Your task to perform on an android device: check google app version Image 0: 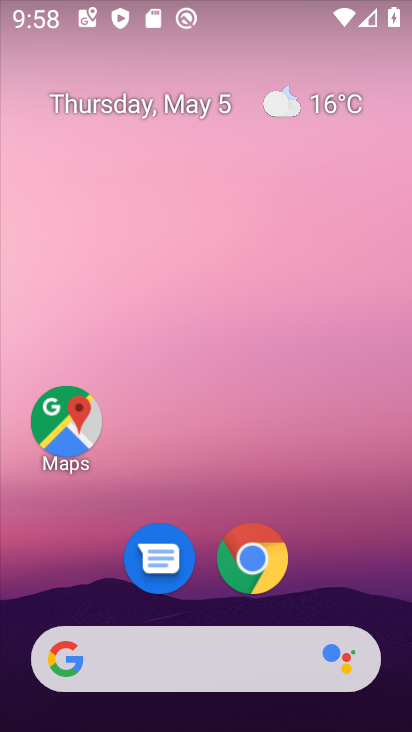
Step 0: click (265, 559)
Your task to perform on an android device: check google app version Image 1: 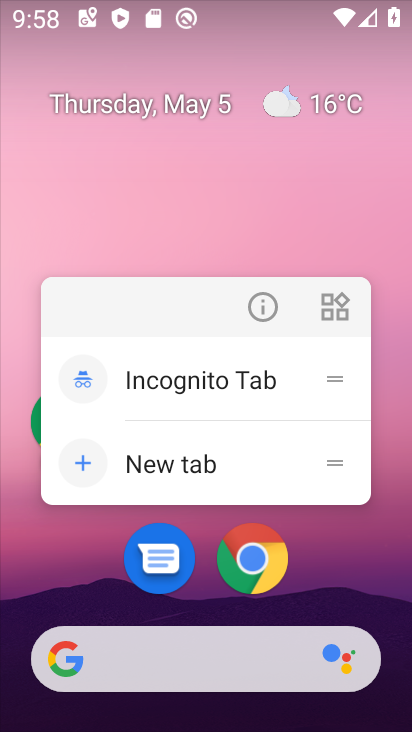
Step 1: click (269, 311)
Your task to perform on an android device: check google app version Image 2: 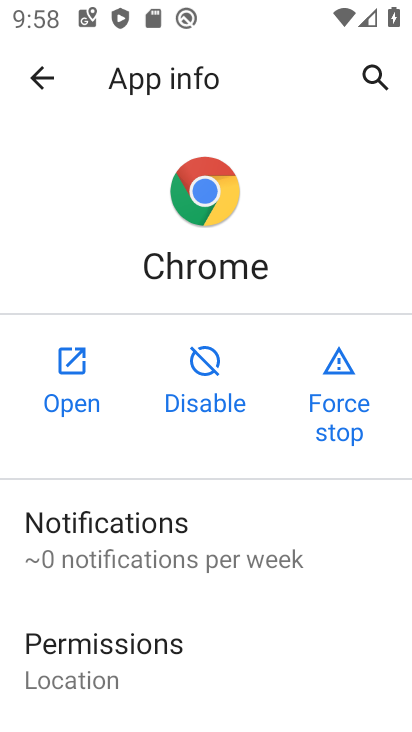
Step 2: drag from (243, 612) to (84, 122)
Your task to perform on an android device: check google app version Image 3: 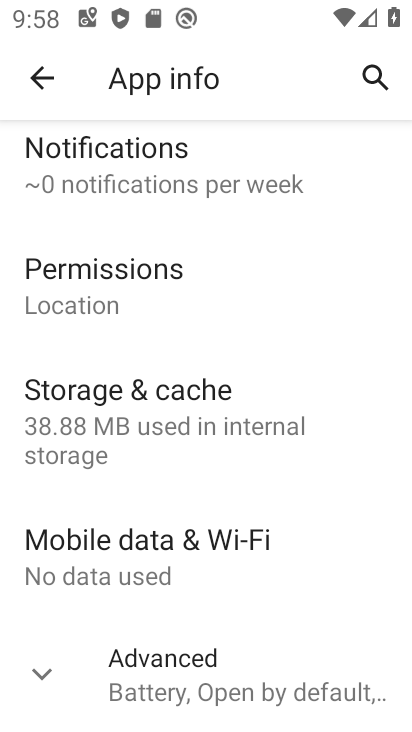
Step 3: click (240, 674)
Your task to perform on an android device: check google app version Image 4: 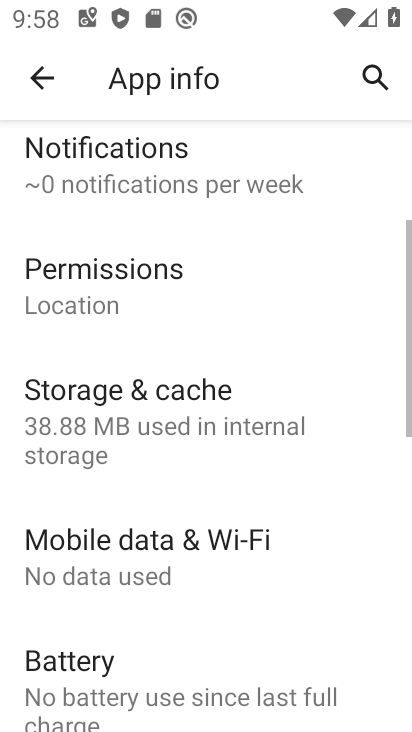
Step 4: task complete